Your task to perform on an android device: Open Youtube and go to "Your channel" Image 0: 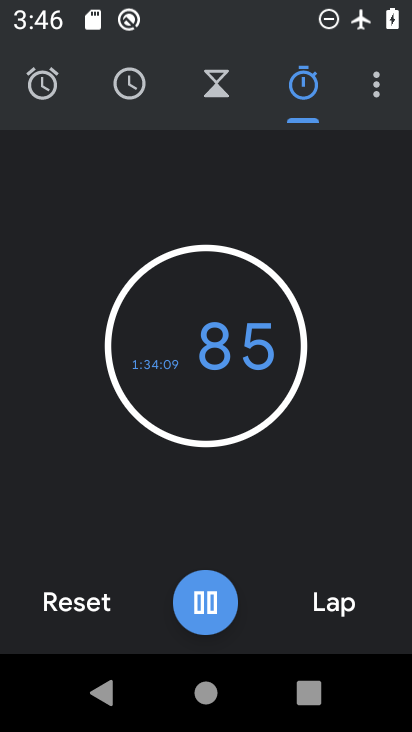
Step 0: press home button
Your task to perform on an android device: Open Youtube and go to "Your channel" Image 1: 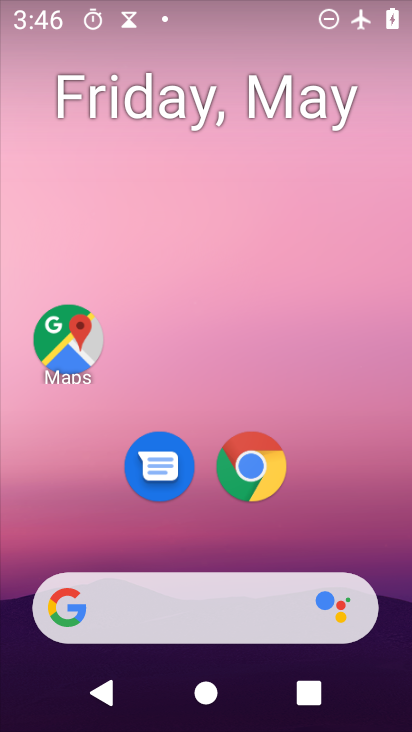
Step 1: drag from (347, 499) to (281, 4)
Your task to perform on an android device: Open Youtube and go to "Your channel" Image 2: 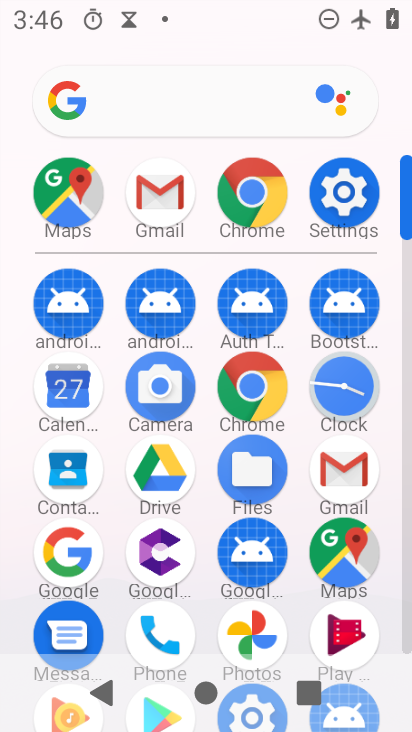
Step 2: drag from (384, 542) to (342, 167)
Your task to perform on an android device: Open Youtube and go to "Your channel" Image 3: 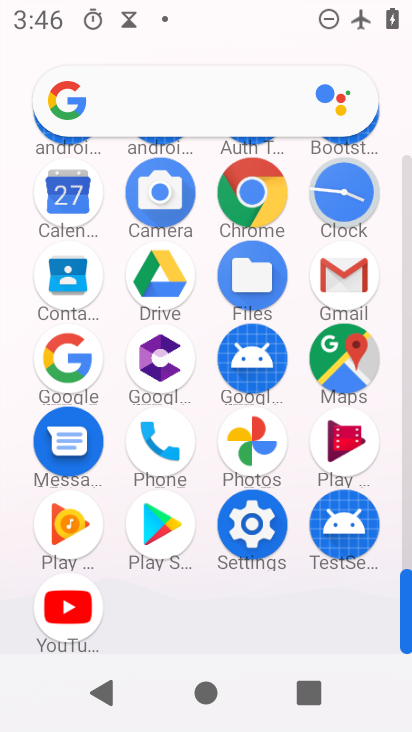
Step 3: click (86, 602)
Your task to perform on an android device: Open Youtube and go to "Your channel" Image 4: 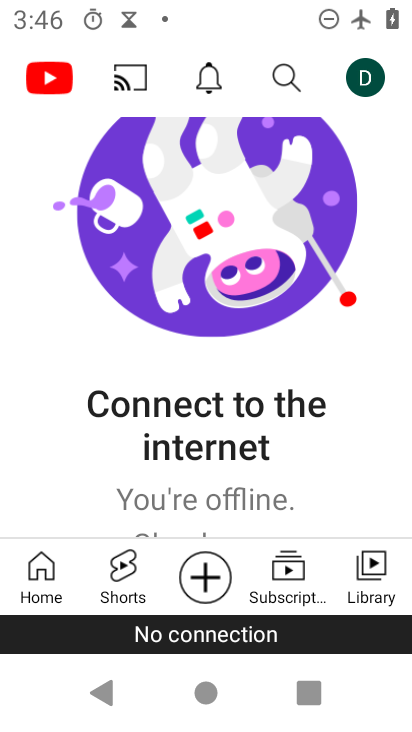
Step 4: drag from (228, 186) to (278, 532)
Your task to perform on an android device: Open Youtube and go to "Your channel" Image 5: 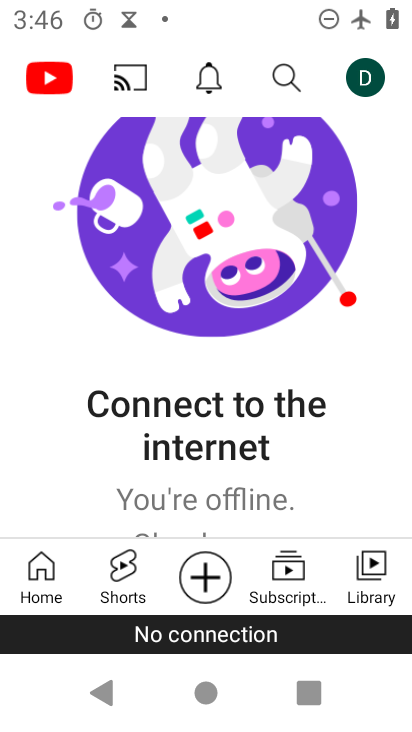
Step 5: drag from (283, 437) to (264, 142)
Your task to perform on an android device: Open Youtube and go to "Your channel" Image 6: 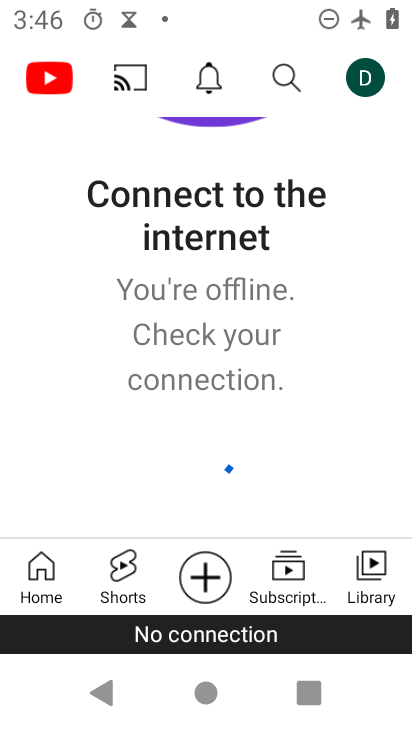
Step 6: drag from (268, 173) to (331, 485)
Your task to perform on an android device: Open Youtube and go to "Your channel" Image 7: 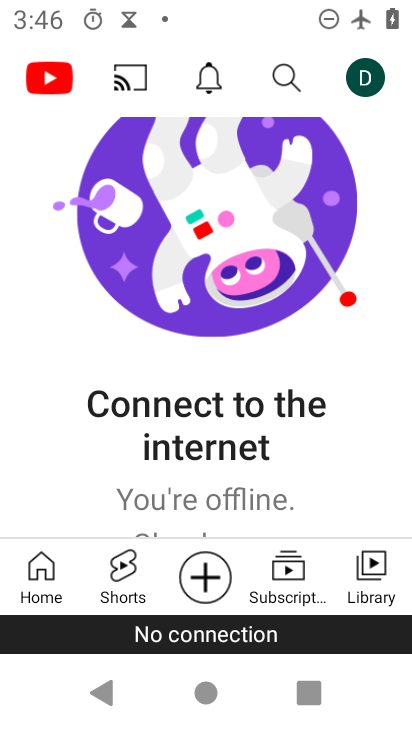
Step 7: click (364, 85)
Your task to perform on an android device: Open Youtube and go to "Your channel" Image 8: 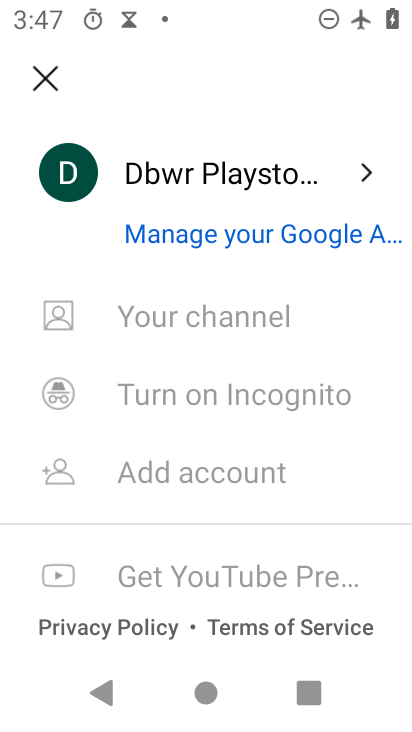
Step 8: click (252, 306)
Your task to perform on an android device: Open Youtube and go to "Your channel" Image 9: 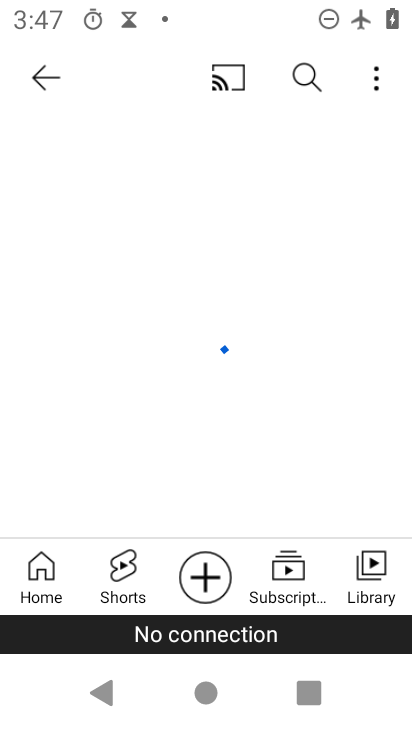
Step 9: task complete